Your task to perform on an android device: Open the stopwatch Image 0: 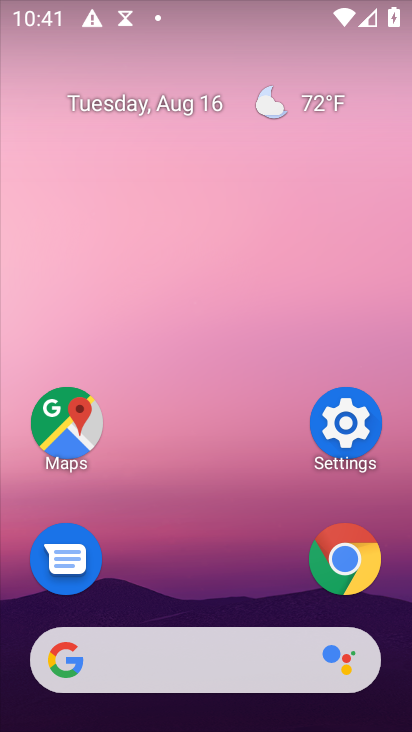
Step 0: drag from (198, 626) to (279, 95)
Your task to perform on an android device: Open the stopwatch Image 1: 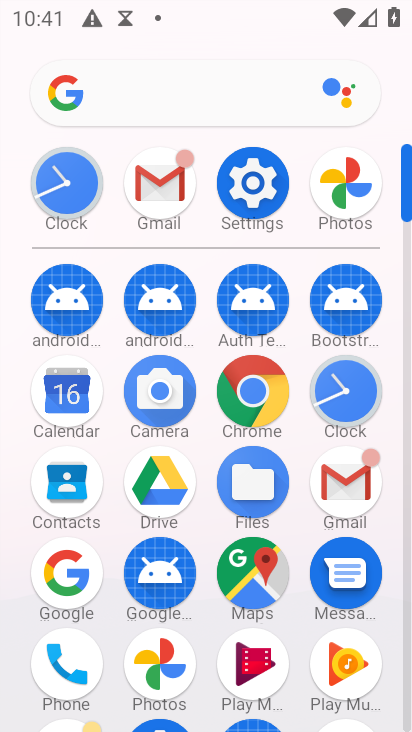
Step 1: click (369, 399)
Your task to perform on an android device: Open the stopwatch Image 2: 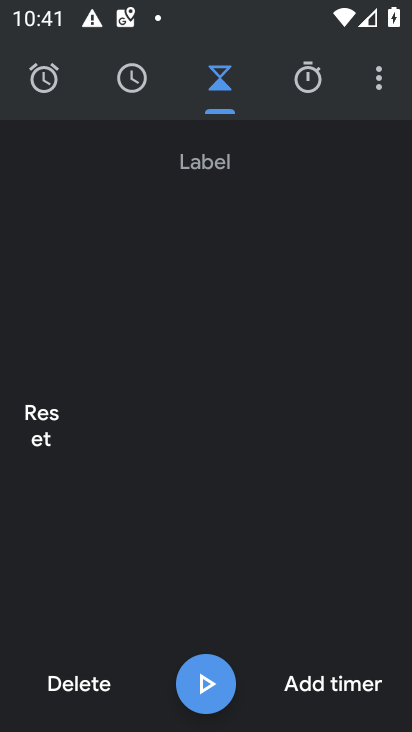
Step 2: click (307, 83)
Your task to perform on an android device: Open the stopwatch Image 3: 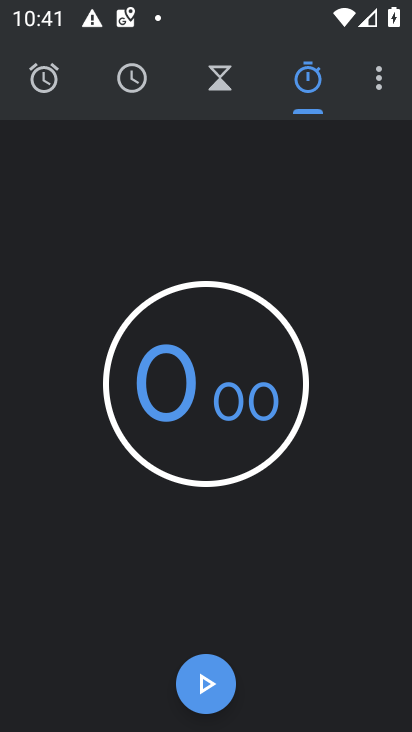
Step 3: click (213, 352)
Your task to perform on an android device: Open the stopwatch Image 4: 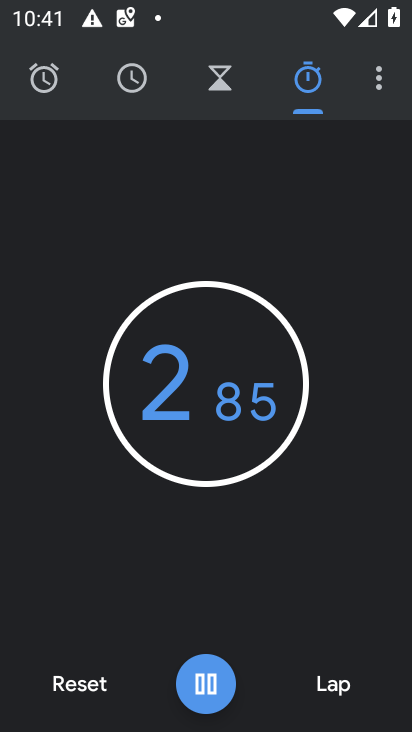
Step 4: click (213, 351)
Your task to perform on an android device: Open the stopwatch Image 5: 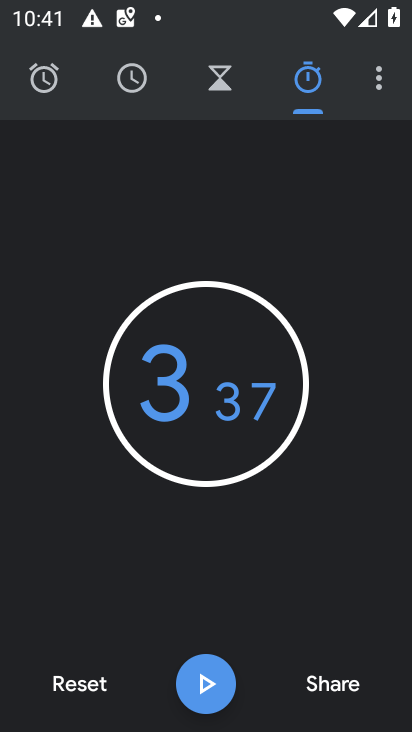
Step 5: task complete